Your task to perform on an android device: change the clock display to analog Image 0: 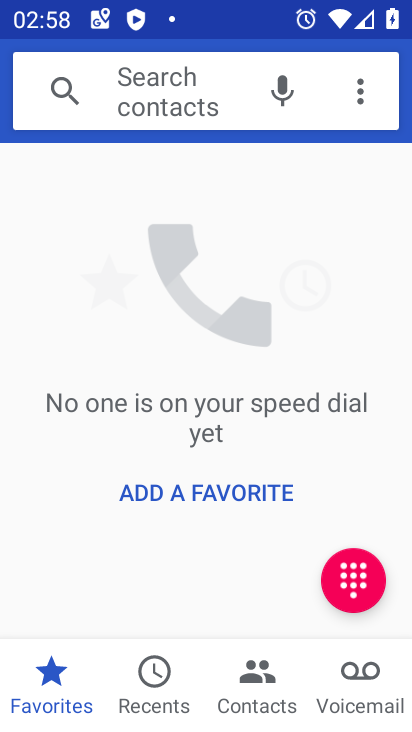
Step 0: press home button
Your task to perform on an android device: change the clock display to analog Image 1: 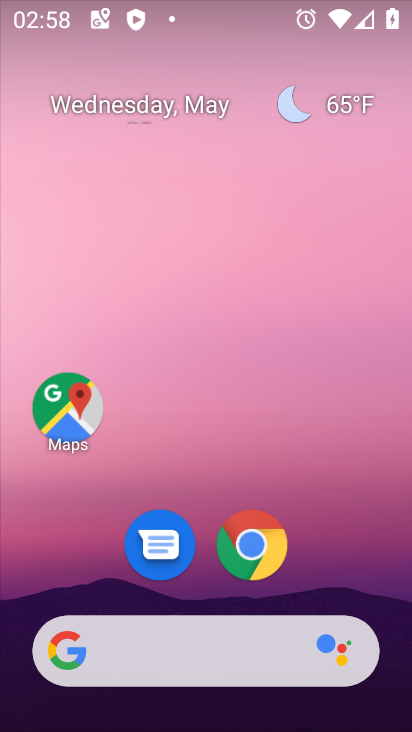
Step 1: drag from (319, 389) to (248, 6)
Your task to perform on an android device: change the clock display to analog Image 2: 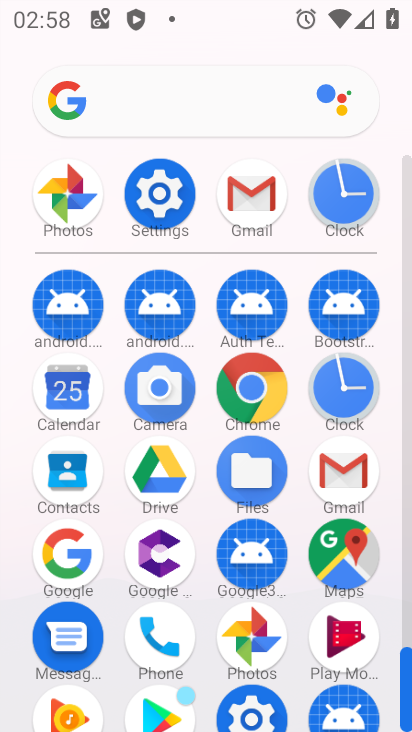
Step 2: click (346, 360)
Your task to perform on an android device: change the clock display to analog Image 3: 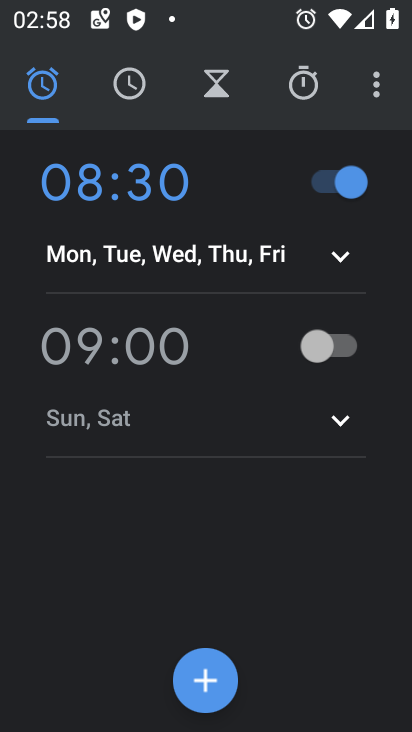
Step 3: click (370, 92)
Your task to perform on an android device: change the clock display to analog Image 4: 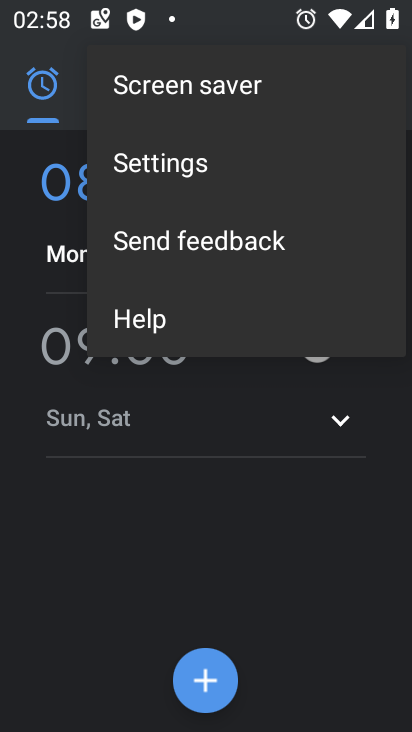
Step 4: click (191, 157)
Your task to perform on an android device: change the clock display to analog Image 5: 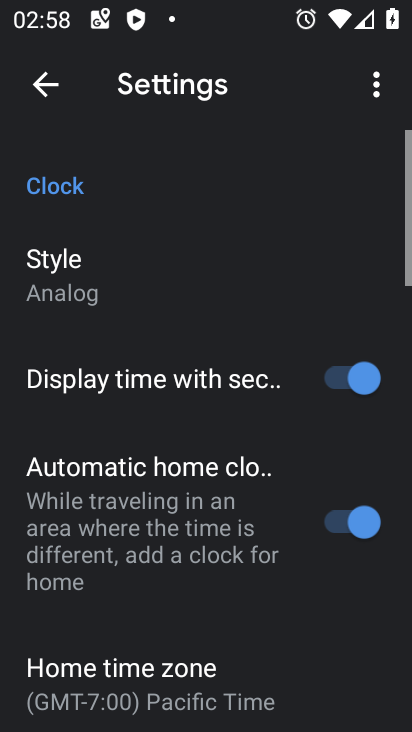
Step 5: click (120, 285)
Your task to perform on an android device: change the clock display to analog Image 6: 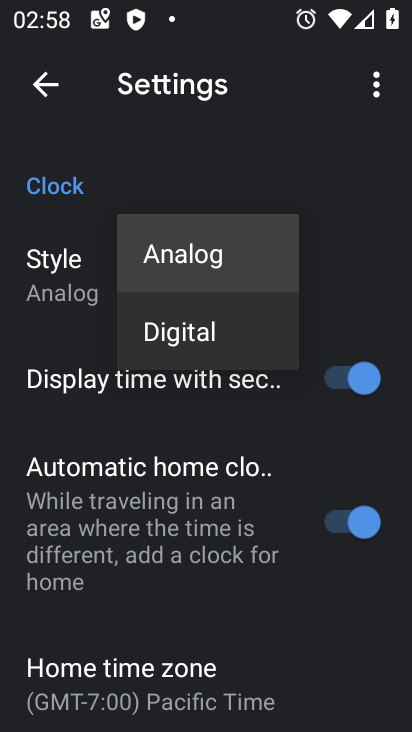
Step 6: task complete